Your task to perform on an android device: Add acer predator to the cart on ebay.com Image 0: 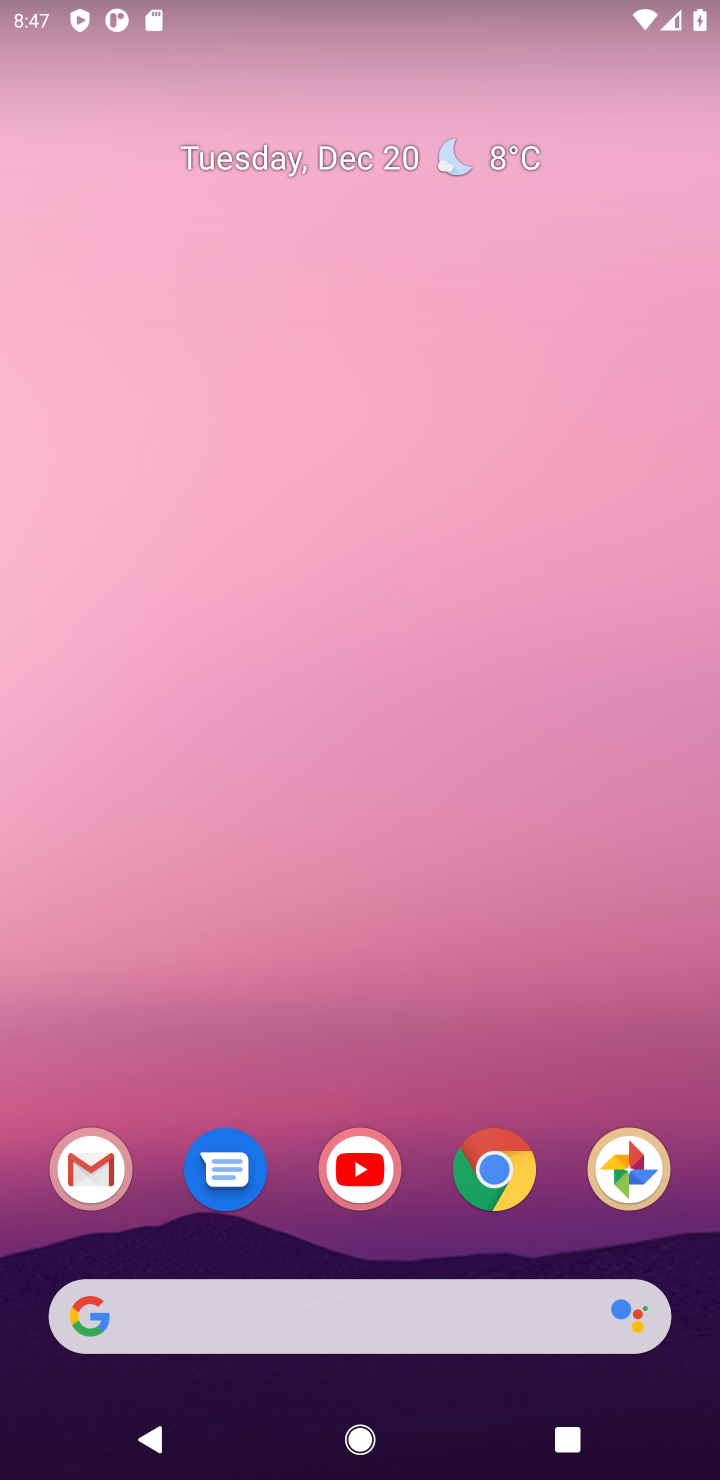
Step 0: click (357, 1295)
Your task to perform on an android device: Add acer predator to the cart on ebay.com Image 1: 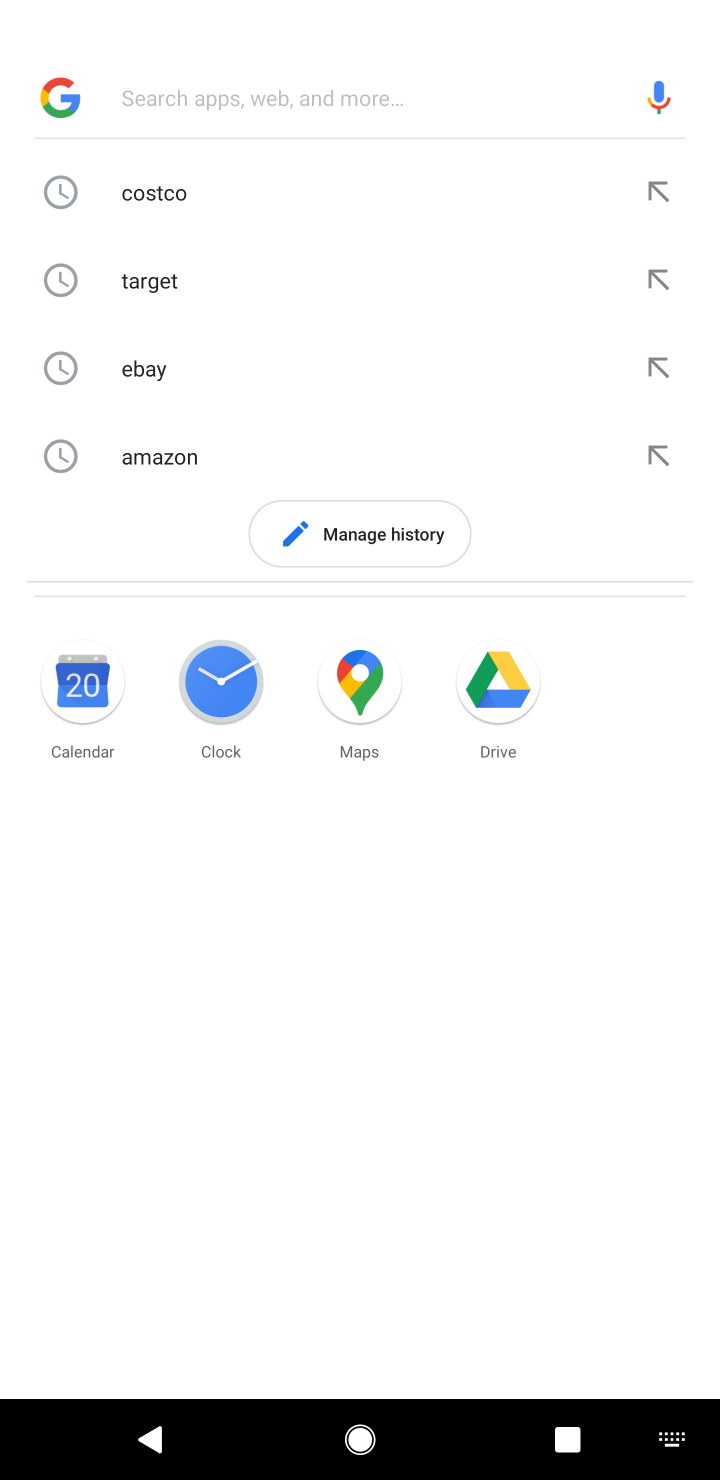
Step 1: click (194, 368)
Your task to perform on an android device: Add acer predator to the cart on ebay.com Image 2: 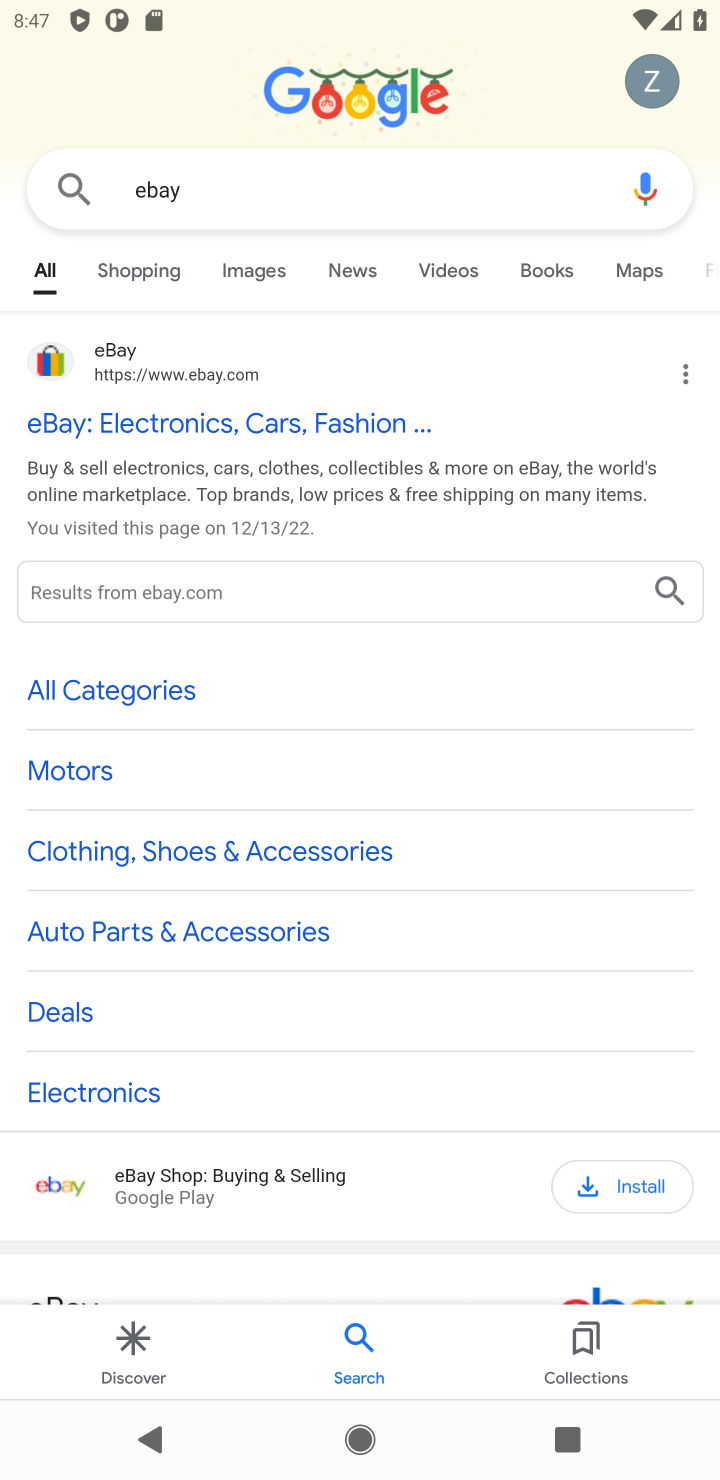
Step 2: click (140, 416)
Your task to perform on an android device: Add acer predator to the cart on ebay.com Image 3: 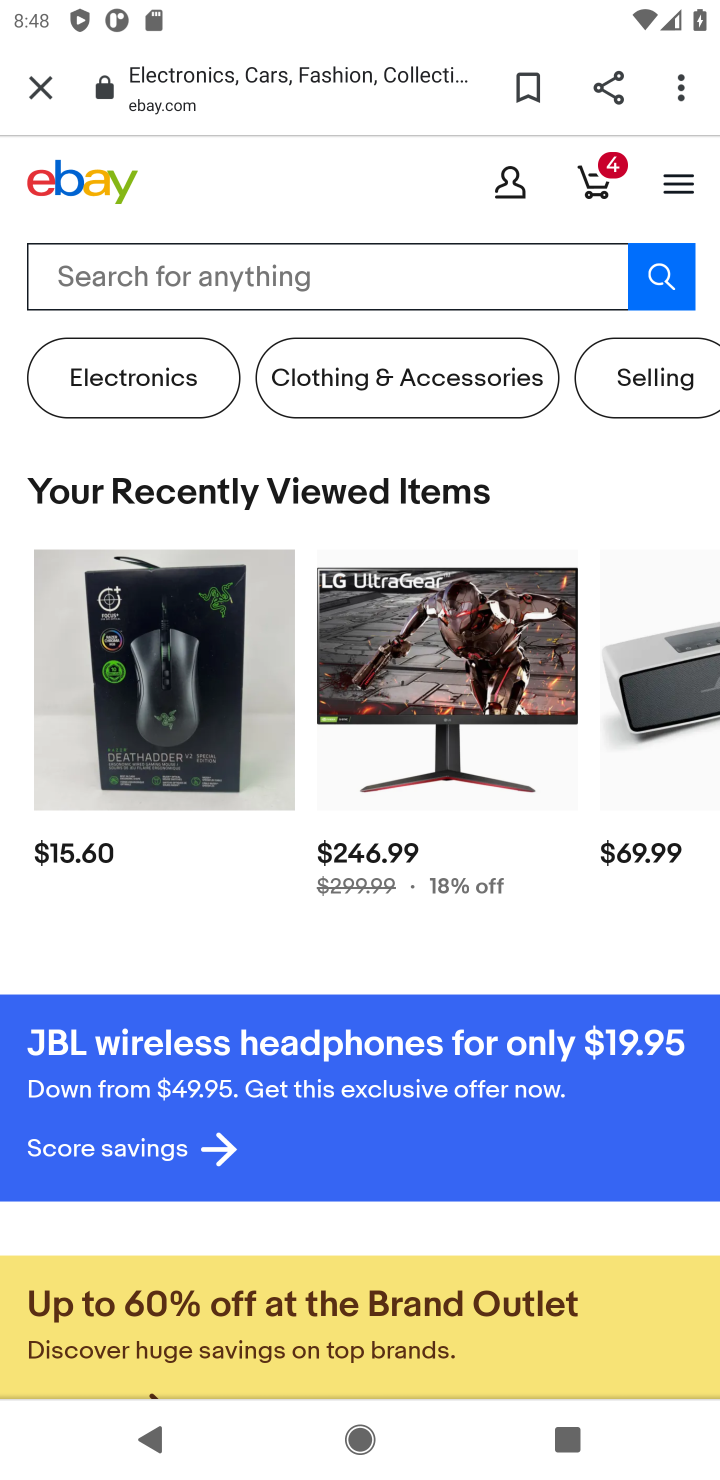
Step 3: task complete